Your task to perform on an android device: install app "Grab" Image 0: 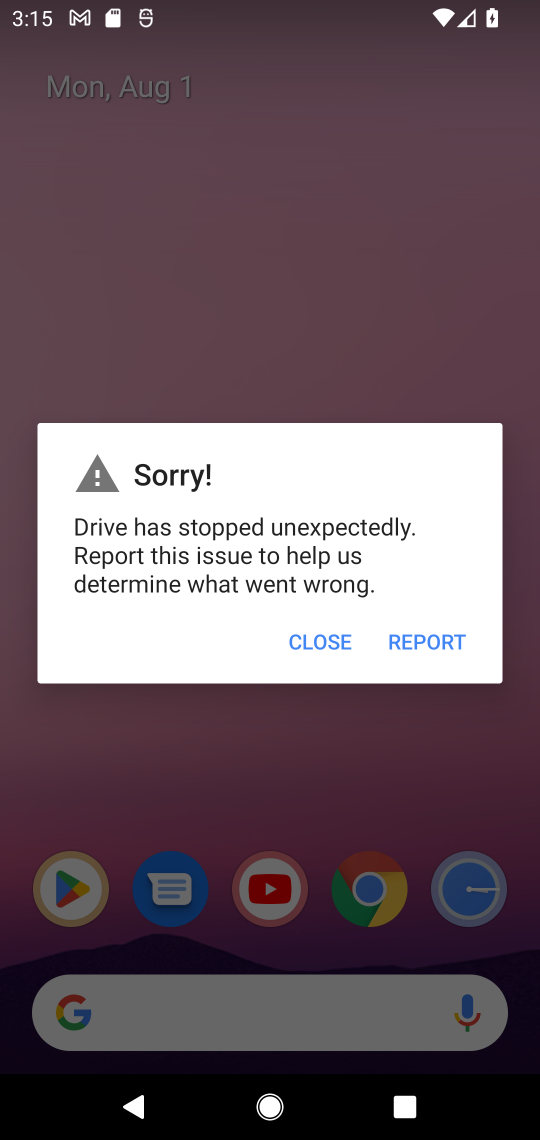
Step 0: click (339, 656)
Your task to perform on an android device: install app "Grab" Image 1: 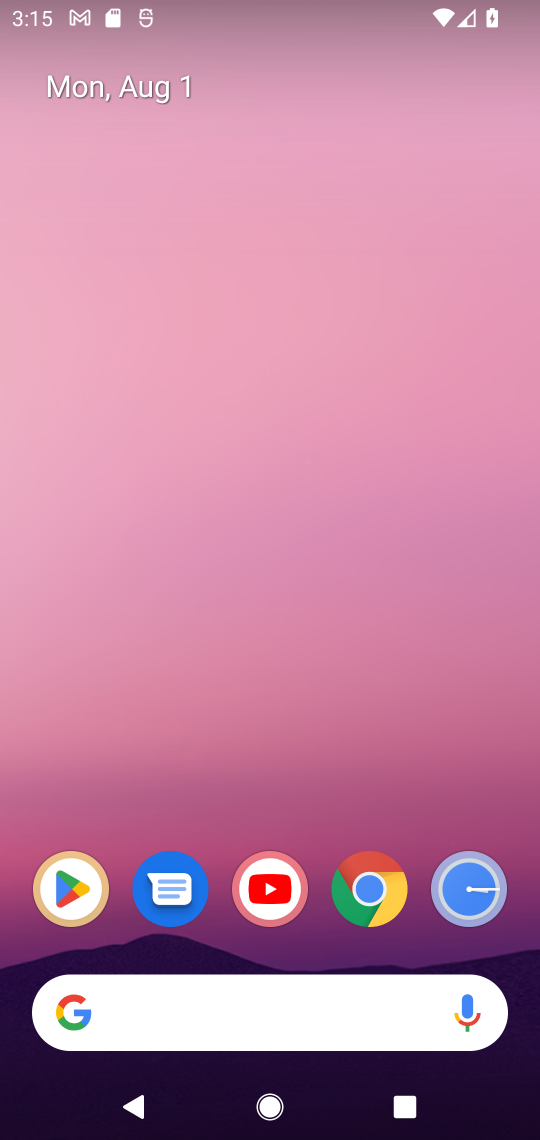
Step 1: click (70, 907)
Your task to perform on an android device: install app "Grab" Image 2: 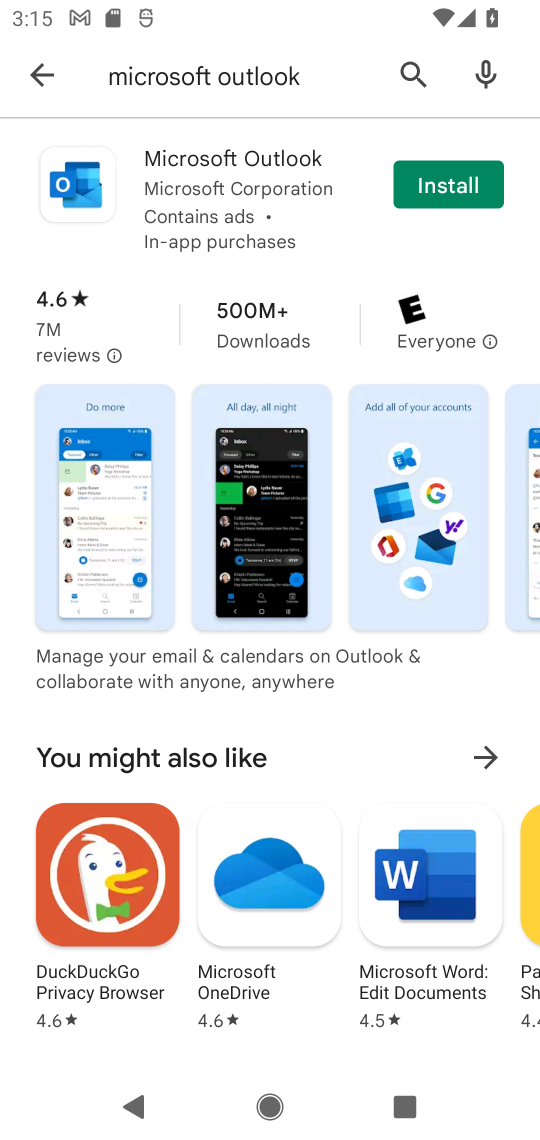
Step 2: click (399, 73)
Your task to perform on an android device: install app "Grab" Image 3: 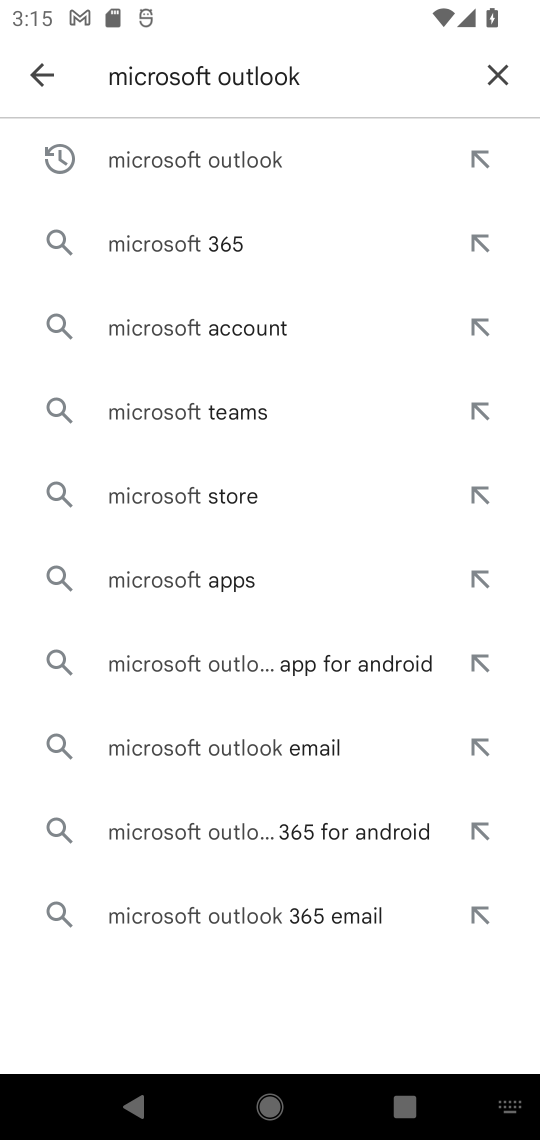
Step 3: click (507, 79)
Your task to perform on an android device: install app "Grab" Image 4: 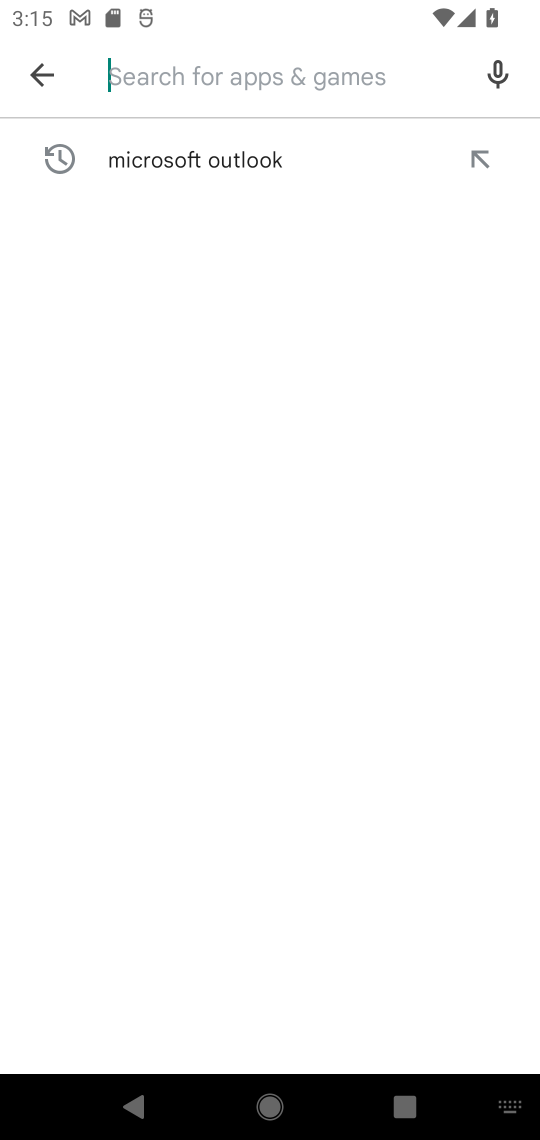
Step 4: type "grab"
Your task to perform on an android device: install app "Grab" Image 5: 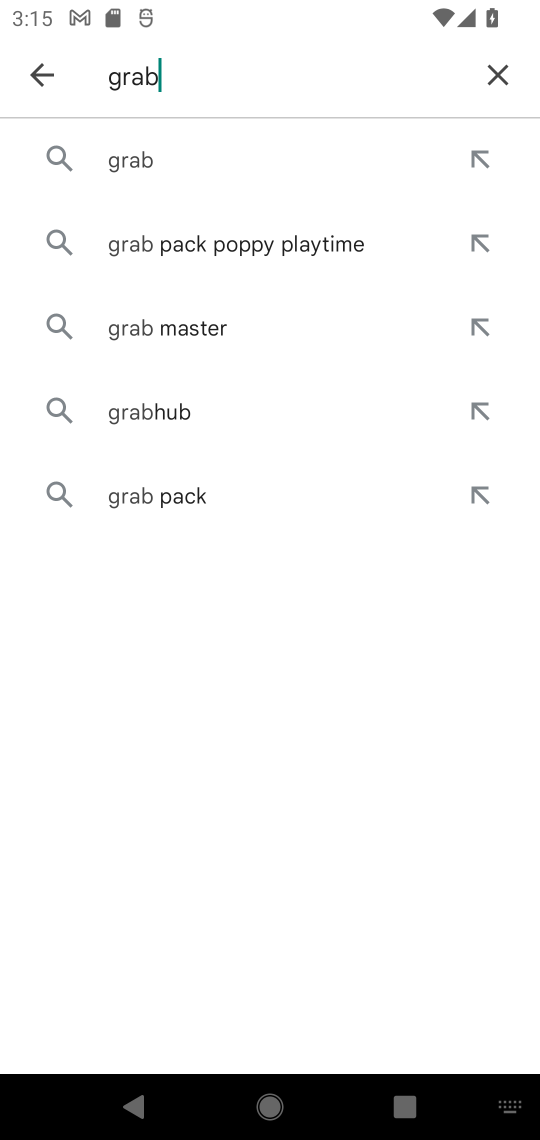
Step 5: click (144, 152)
Your task to perform on an android device: install app "Grab" Image 6: 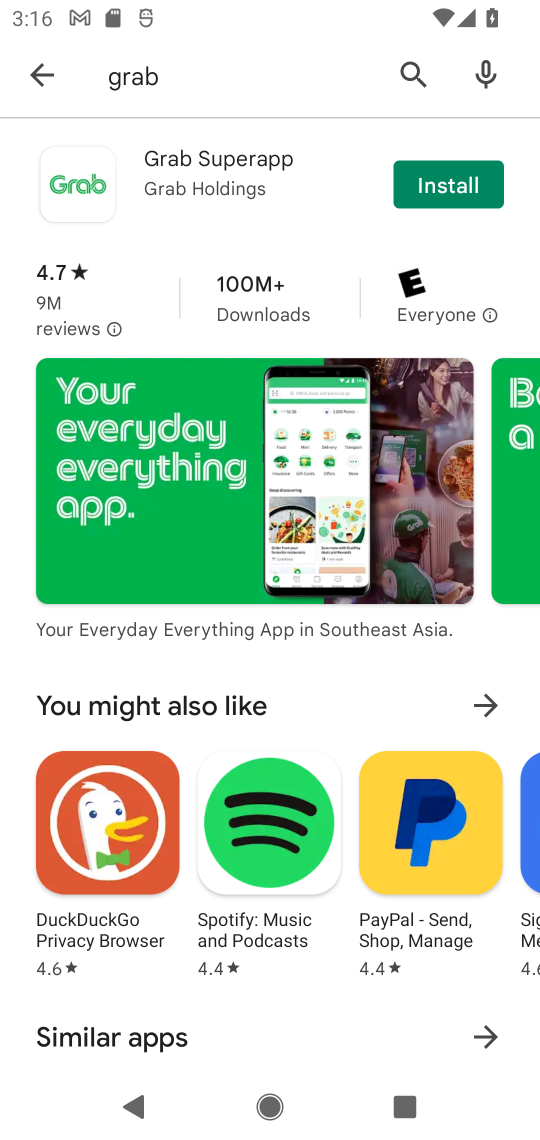
Step 6: click (431, 175)
Your task to perform on an android device: install app "Grab" Image 7: 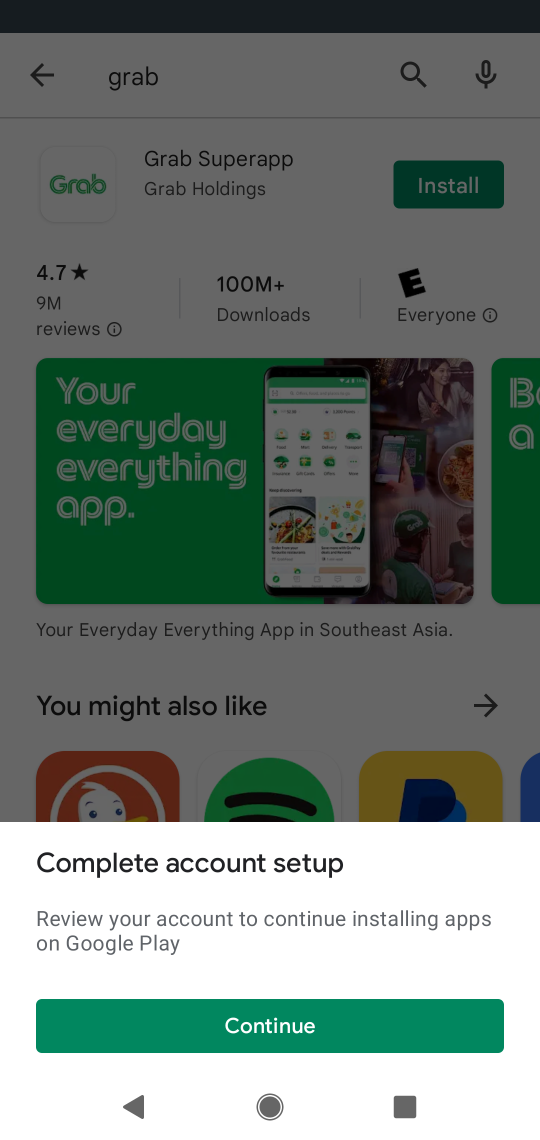
Step 7: click (271, 1044)
Your task to perform on an android device: install app "Grab" Image 8: 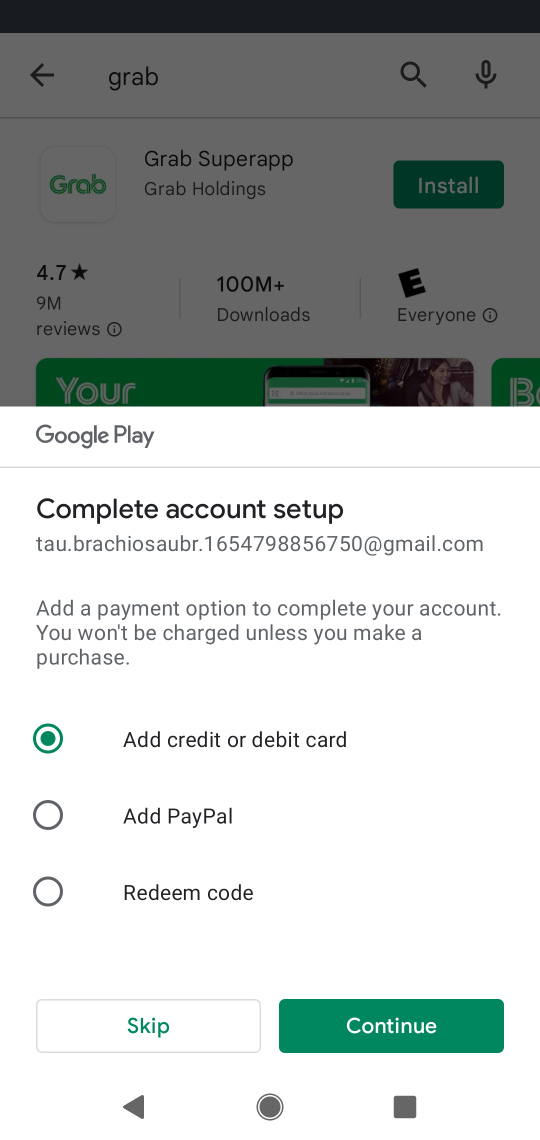
Step 8: click (197, 1018)
Your task to perform on an android device: install app "Grab" Image 9: 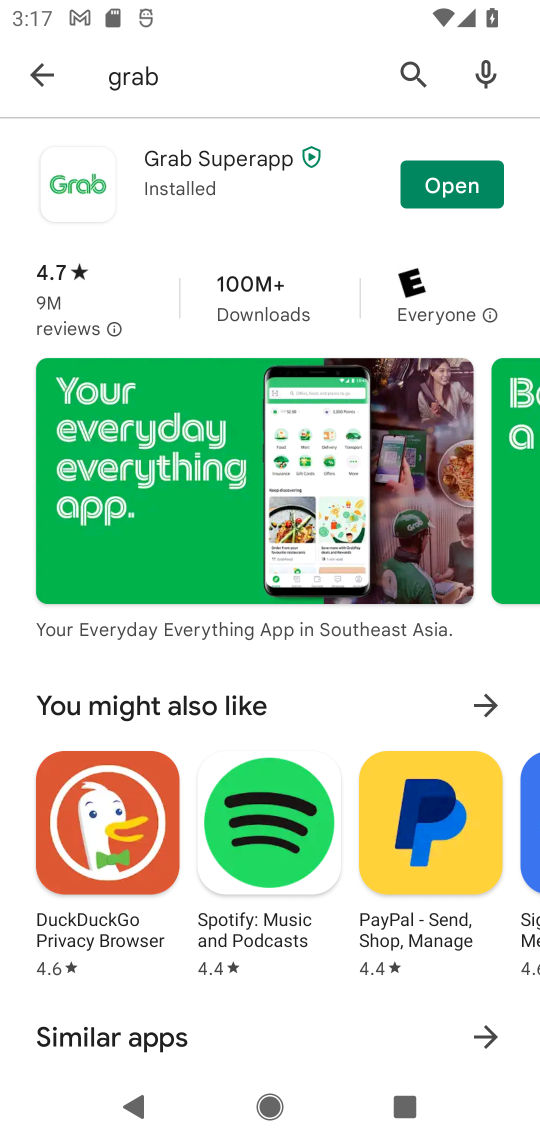
Step 9: task complete